Your task to perform on an android device: delete browsing data in the chrome app Image 0: 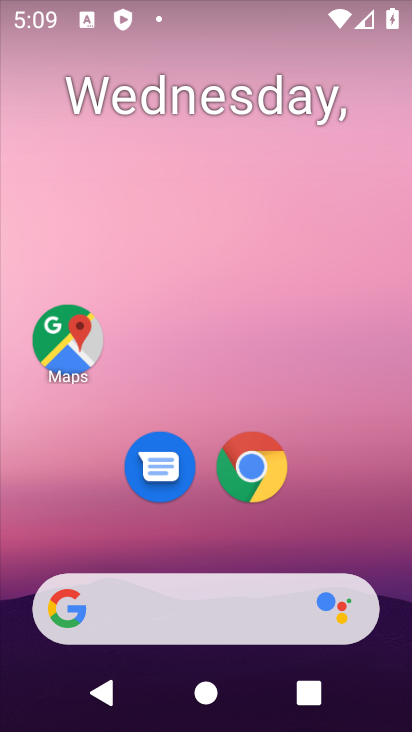
Step 0: press home button
Your task to perform on an android device: delete browsing data in the chrome app Image 1: 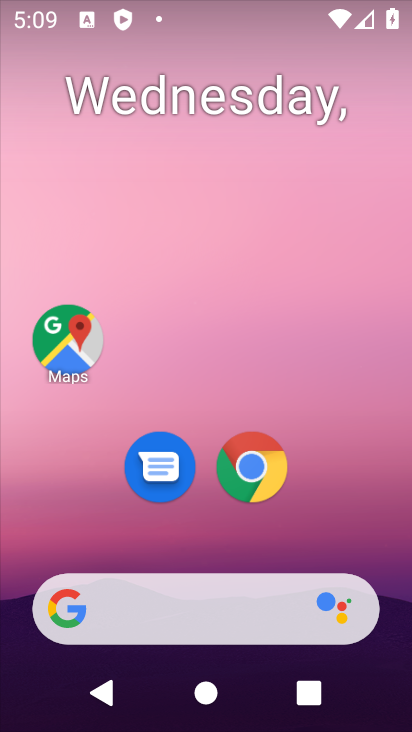
Step 1: drag from (369, 536) to (262, 62)
Your task to perform on an android device: delete browsing data in the chrome app Image 2: 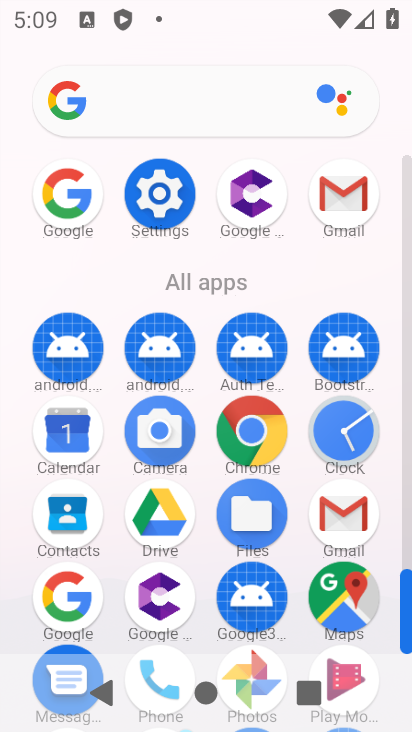
Step 2: click (268, 417)
Your task to perform on an android device: delete browsing data in the chrome app Image 3: 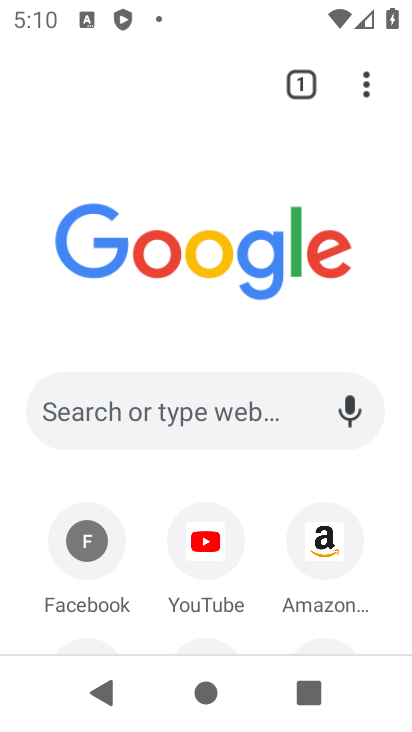
Step 3: click (370, 77)
Your task to perform on an android device: delete browsing data in the chrome app Image 4: 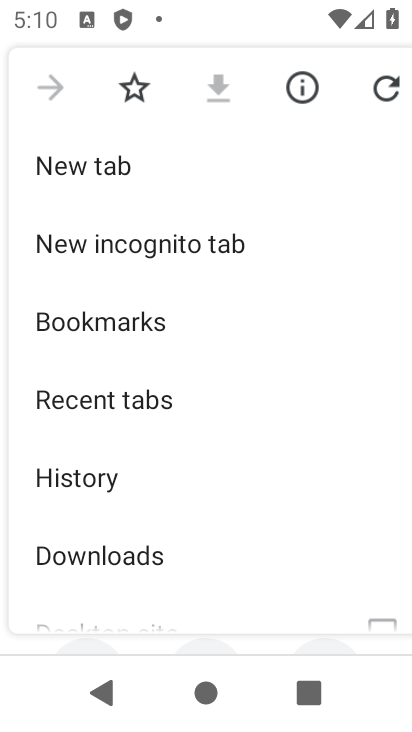
Step 4: click (144, 476)
Your task to perform on an android device: delete browsing data in the chrome app Image 5: 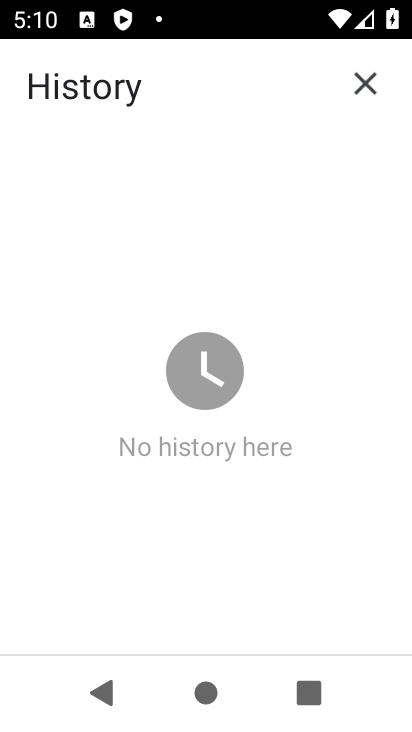
Step 5: task complete